Your task to perform on an android device: What's the weather? Image 0: 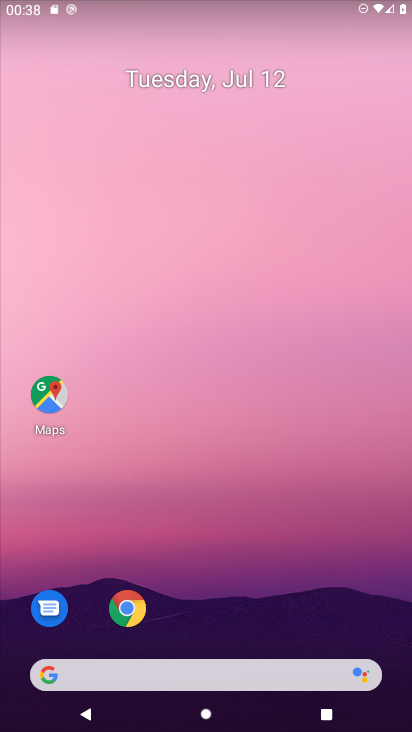
Step 0: click (224, 665)
Your task to perform on an android device: What's the weather? Image 1: 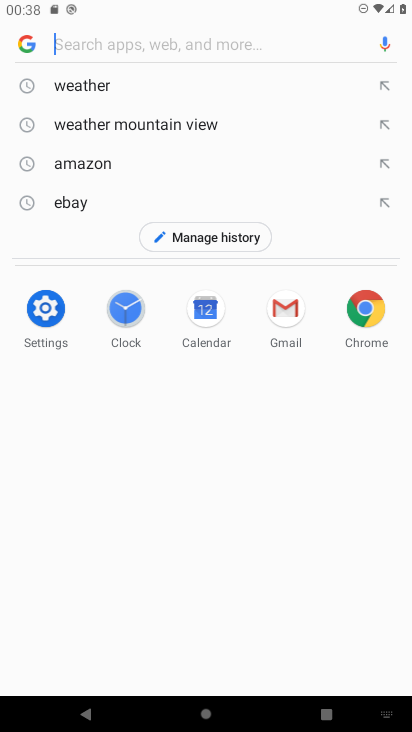
Step 1: click (85, 81)
Your task to perform on an android device: What's the weather? Image 2: 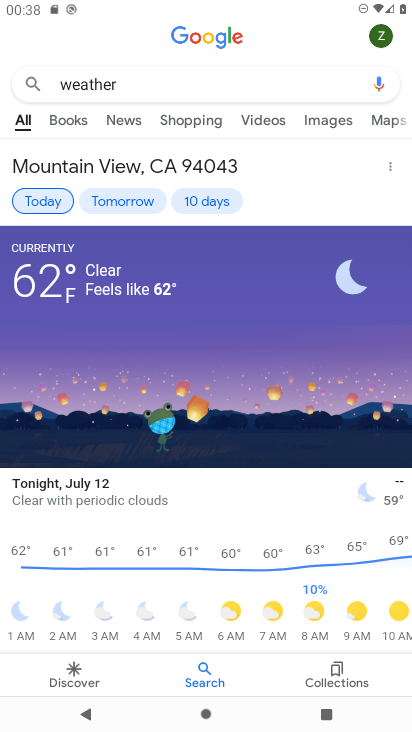
Step 2: task complete